Your task to perform on an android device: move a message to another label in the gmail app Image 0: 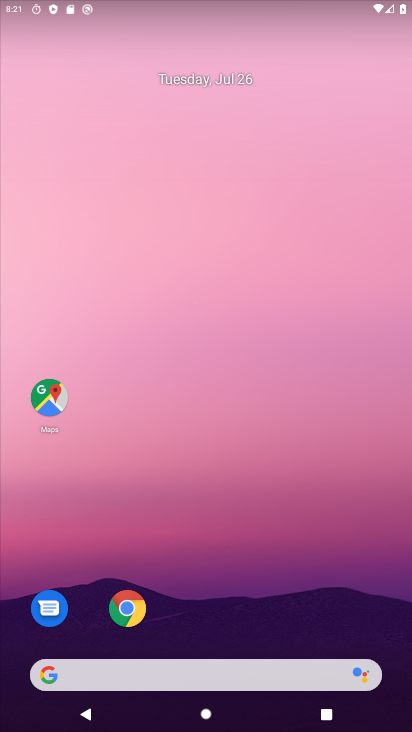
Step 0: drag from (148, 635) to (278, 150)
Your task to perform on an android device: move a message to another label in the gmail app Image 1: 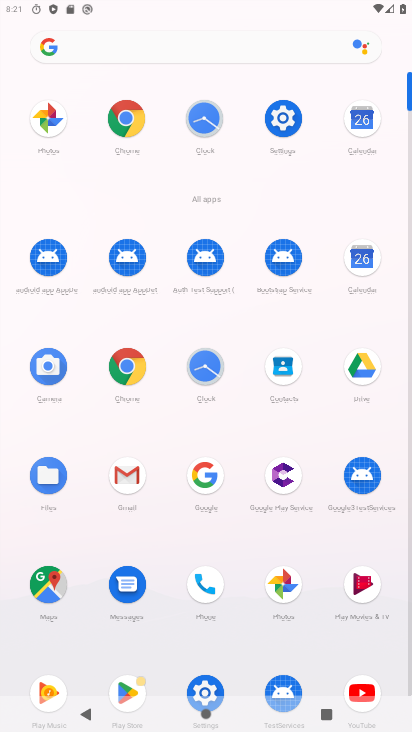
Step 1: click (122, 482)
Your task to perform on an android device: move a message to another label in the gmail app Image 2: 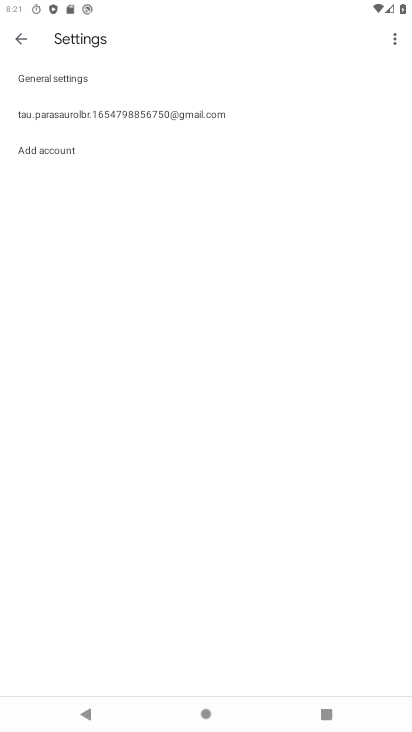
Step 2: press back button
Your task to perform on an android device: move a message to another label in the gmail app Image 3: 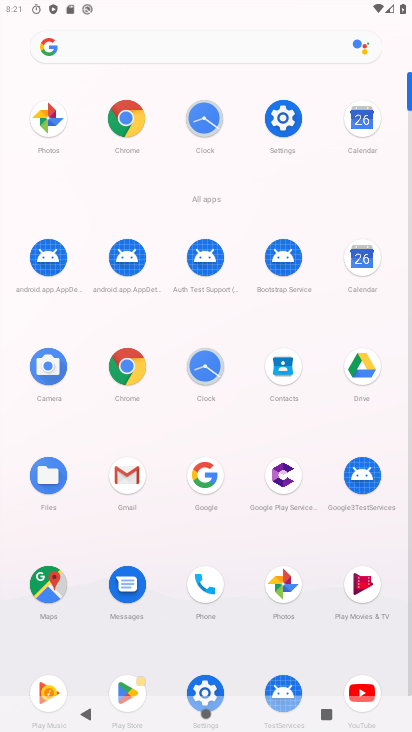
Step 3: click (130, 482)
Your task to perform on an android device: move a message to another label in the gmail app Image 4: 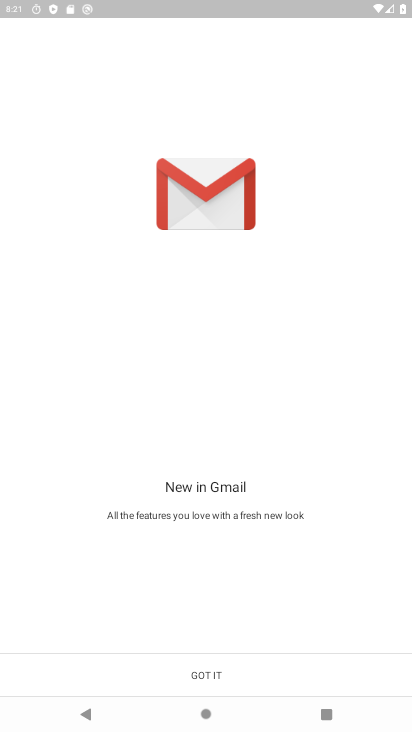
Step 4: click (324, 679)
Your task to perform on an android device: move a message to another label in the gmail app Image 5: 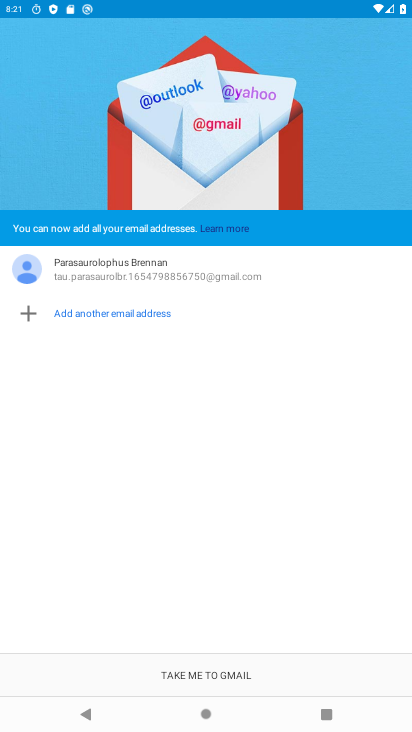
Step 5: click (276, 677)
Your task to perform on an android device: move a message to another label in the gmail app Image 6: 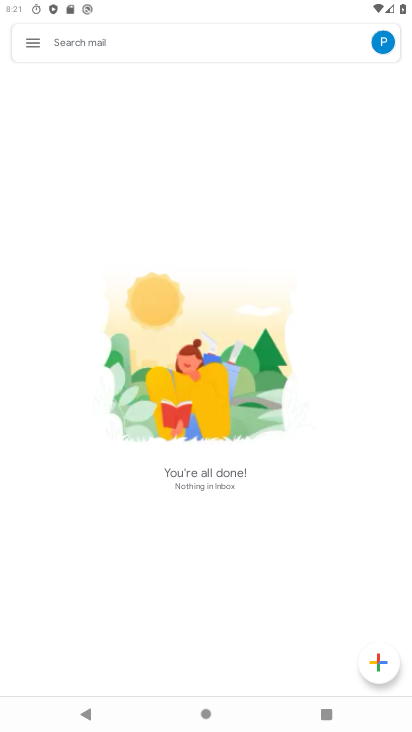
Step 6: click (26, 35)
Your task to perform on an android device: move a message to another label in the gmail app Image 7: 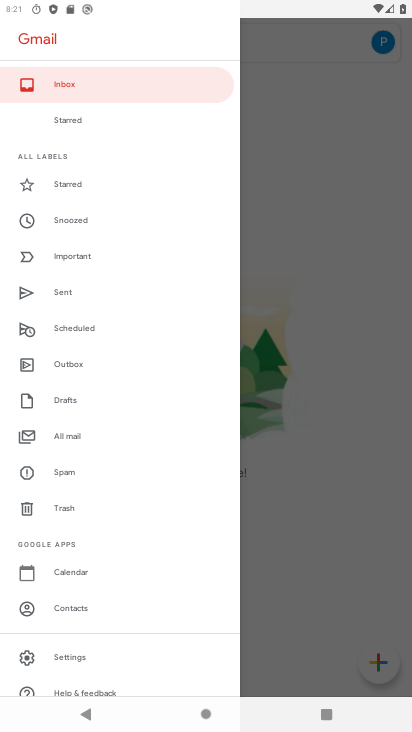
Step 7: click (78, 181)
Your task to perform on an android device: move a message to another label in the gmail app Image 8: 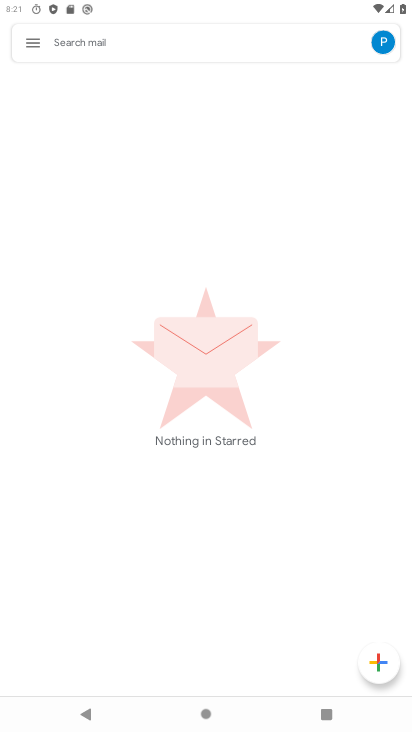
Step 8: task complete